Your task to perform on an android device: clear history in the chrome app Image 0: 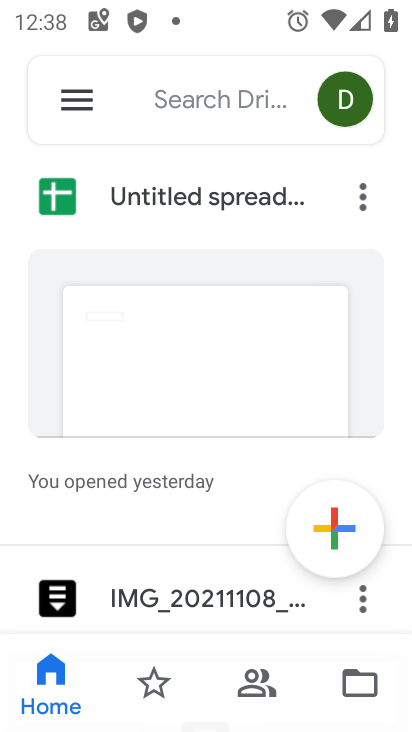
Step 0: press home button
Your task to perform on an android device: clear history in the chrome app Image 1: 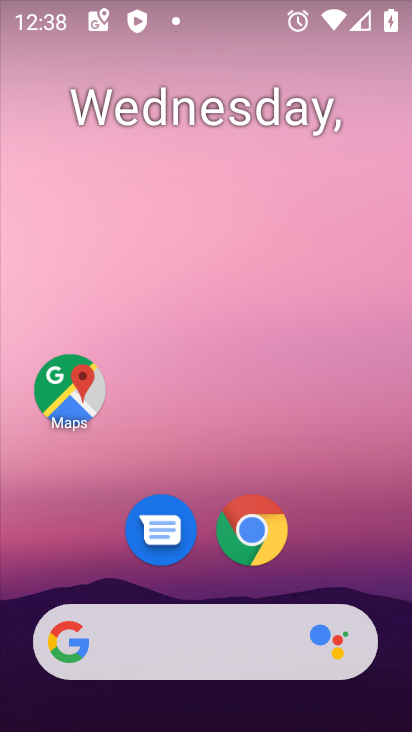
Step 1: click (254, 528)
Your task to perform on an android device: clear history in the chrome app Image 2: 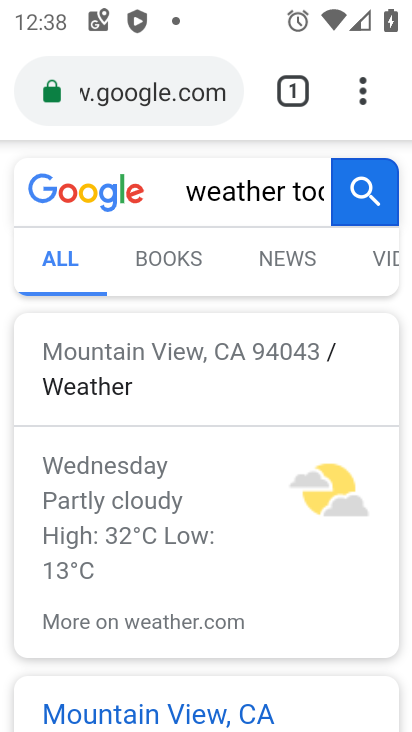
Step 2: click (361, 88)
Your task to perform on an android device: clear history in the chrome app Image 3: 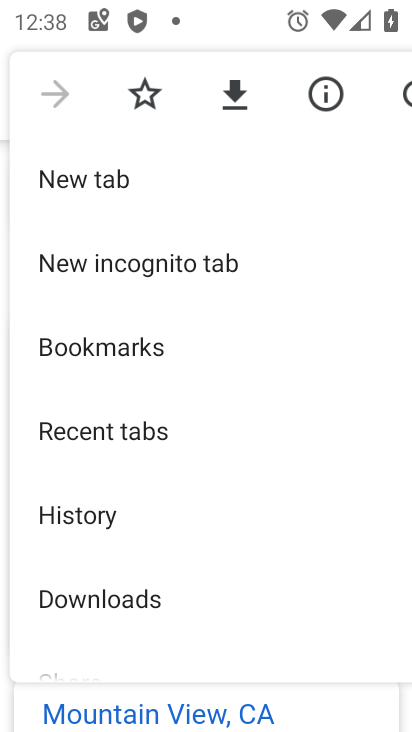
Step 3: drag from (175, 538) to (265, 219)
Your task to perform on an android device: clear history in the chrome app Image 4: 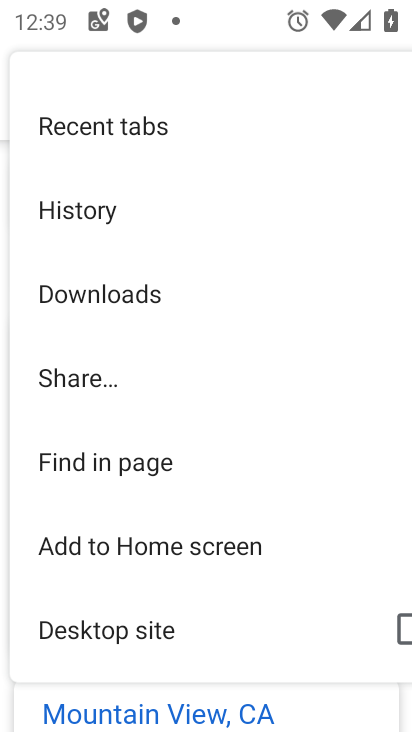
Step 4: click (87, 216)
Your task to perform on an android device: clear history in the chrome app Image 5: 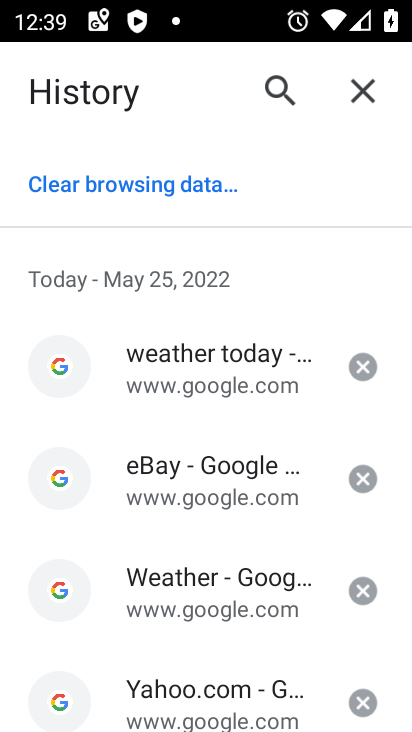
Step 5: click (210, 185)
Your task to perform on an android device: clear history in the chrome app Image 6: 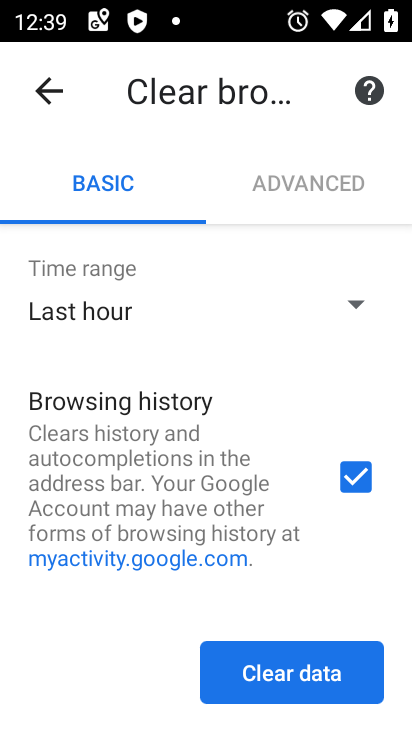
Step 6: click (290, 666)
Your task to perform on an android device: clear history in the chrome app Image 7: 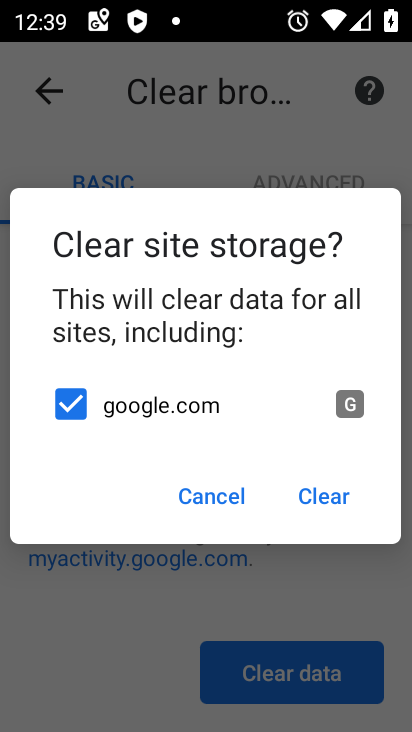
Step 7: click (342, 489)
Your task to perform on an android device: clear history in the chrome app Image 8: 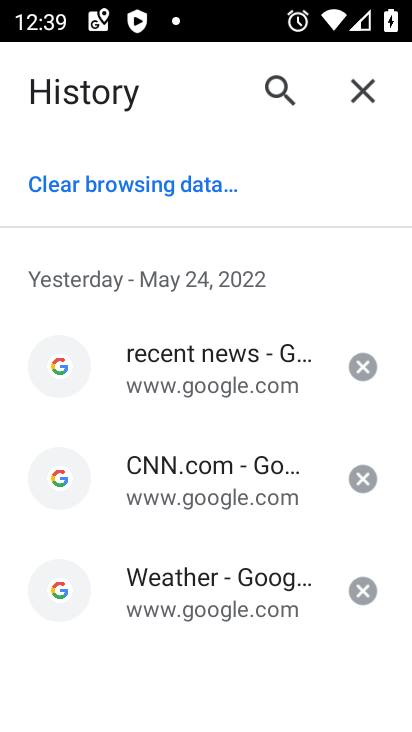
Step 8: task complete